Your task to perform on an android device: allow cookies in the chrome app Image 0: 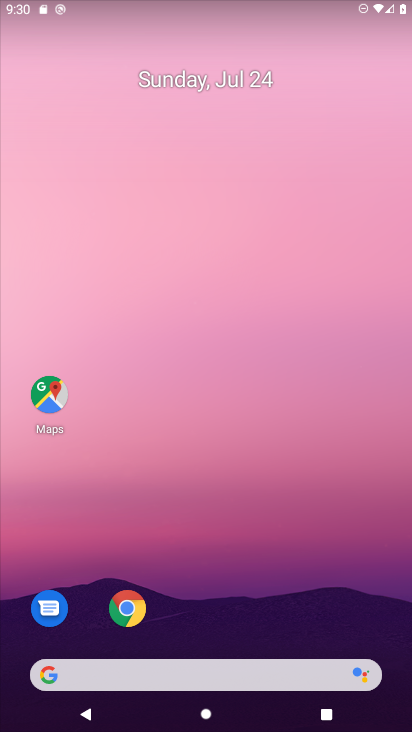
Step 0: click (314, 93)
Your task to perform on an android device: allow cookies in the chrome app Image 1: 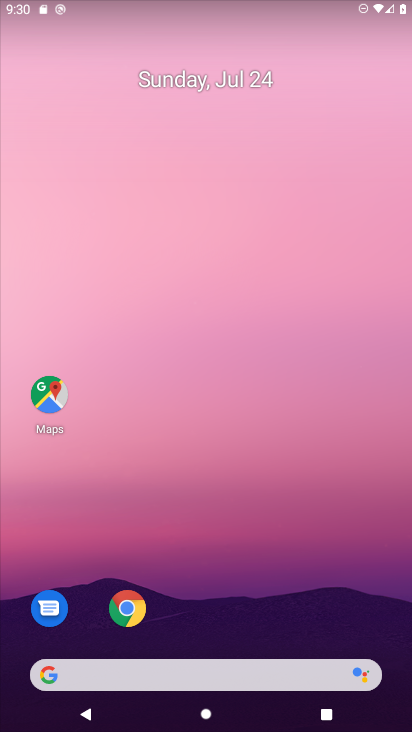
Step 1: drag from (230, 0) to (310, 166)
Your task to perform on an android device: allow cookies in the chrome app Image 2: 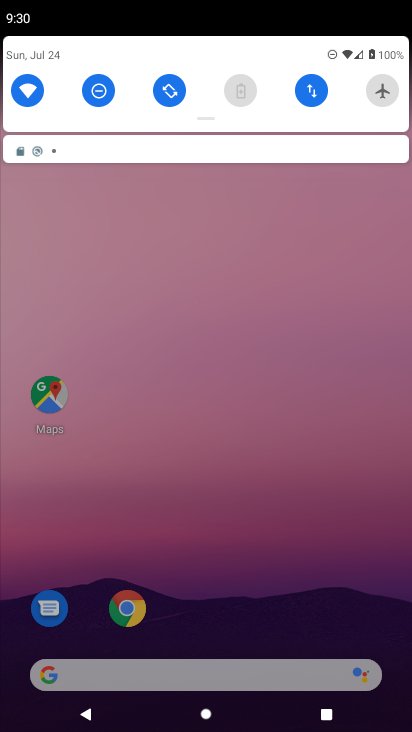
Step 2: drag from (226, 448) to (298, 43)
Your task to perform on an android device: allow cookies in the chrome app Image 3: 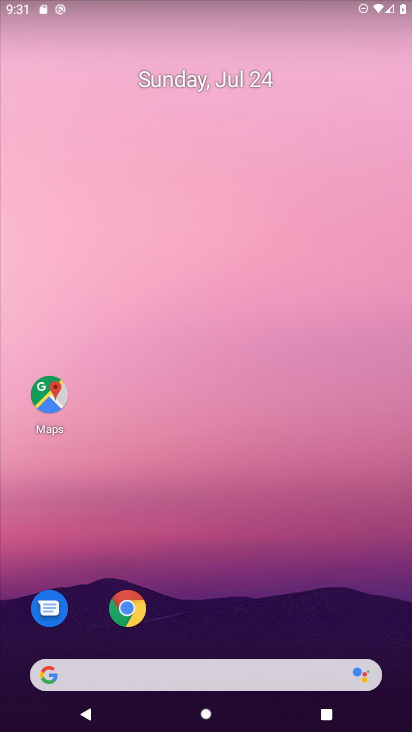
Step 3: drag from (141, 616) to (245, 200)
Your task to perform on an android device: allow cookies in the chrome app Image 4: 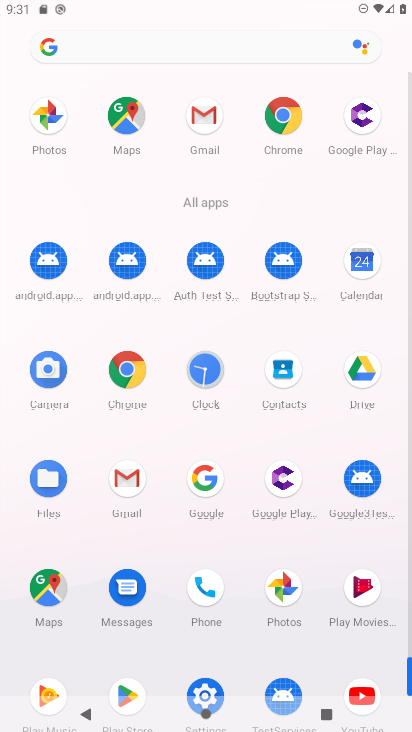
Step 4: click (126, 365)
Your task to perform on an android device: allow cookies in the chrome app Image 5: 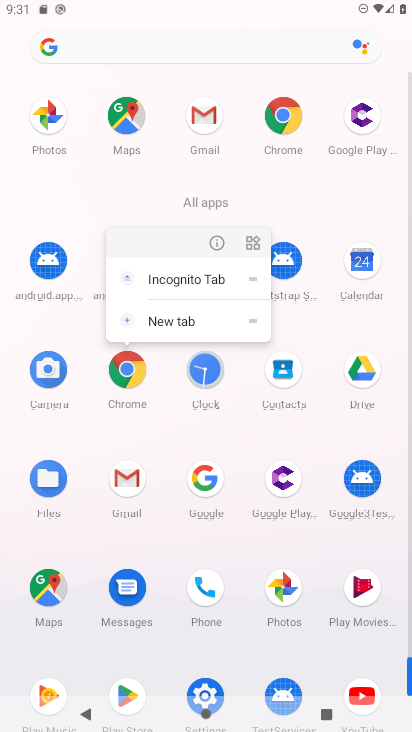
Step 5: click (212, 239)
Your task to perform on an android device: allow cookies in the chrome app Image 6: 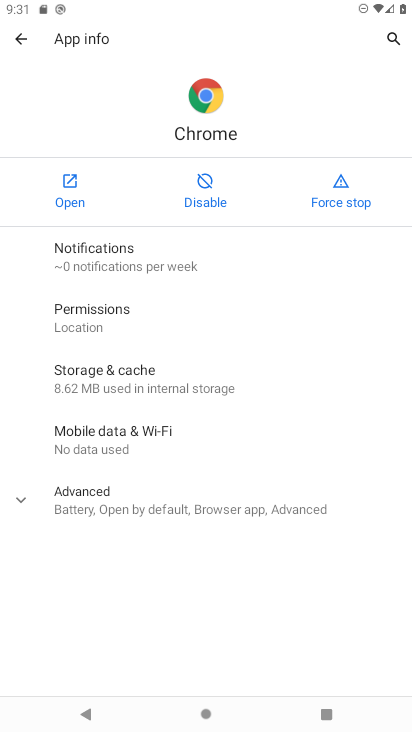
Step 6: click (72, 193)
Your task to perform on an android device: allow cookies in the chrome app Image 7: 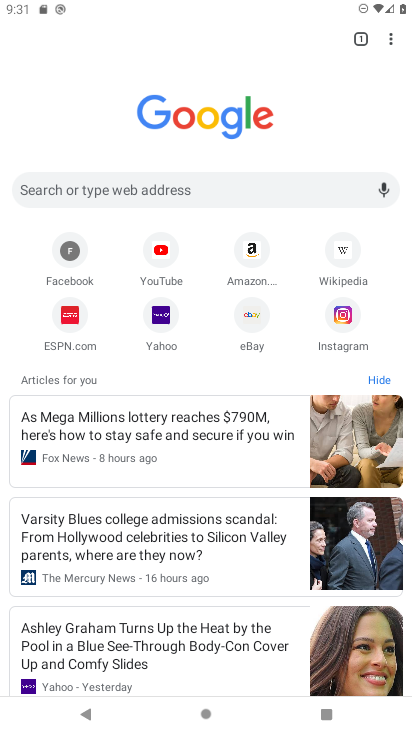
Step 7: drag from (393, 42) to (265, 326)
Your task to perform on an android device: allow cookies in the chrome app Image 8: 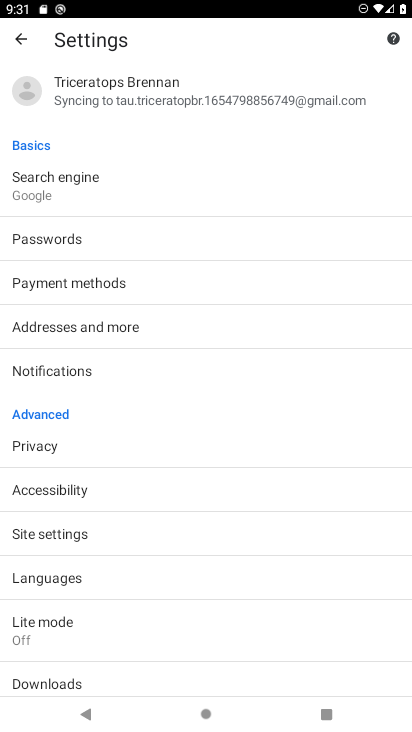
Step 8: click (68, 529)
Your task to perform on an android device: allow cookies in the chrome app Image 9: 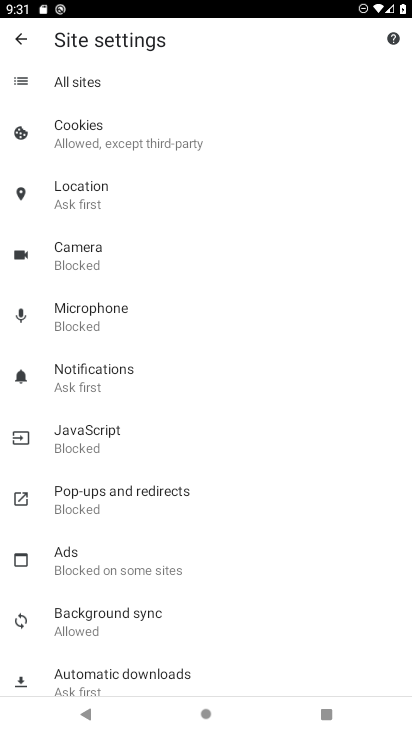
Step 9: click (111, 134)
Your task to perform on an android device: allow cookies in the chrome app Image 10: 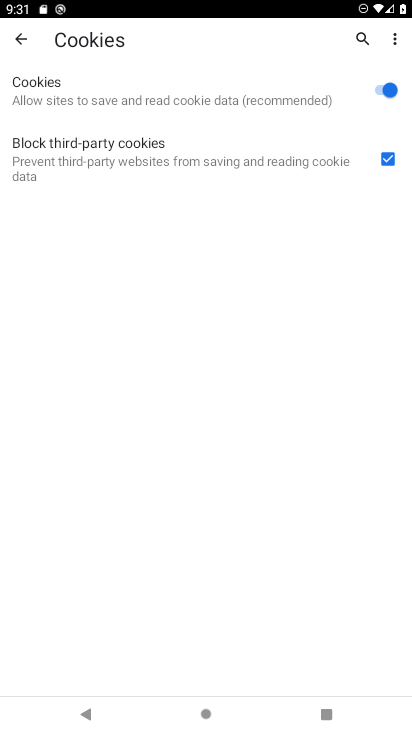
Step 10: task complete